Your task to perform on an android device: Search for a new eyeliner Image 0: 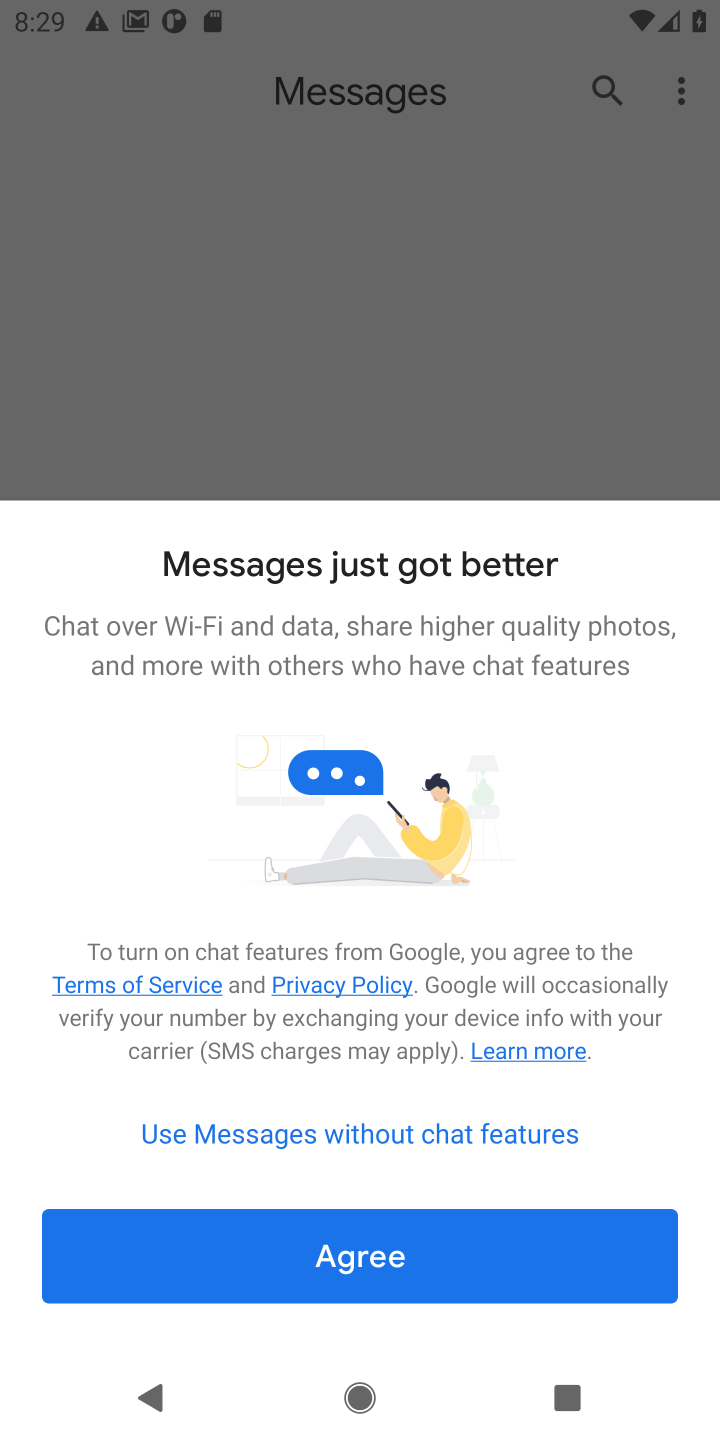
Step 0: press home button
Your task to perform on an android device: Search for a new eyeliner Image 1: 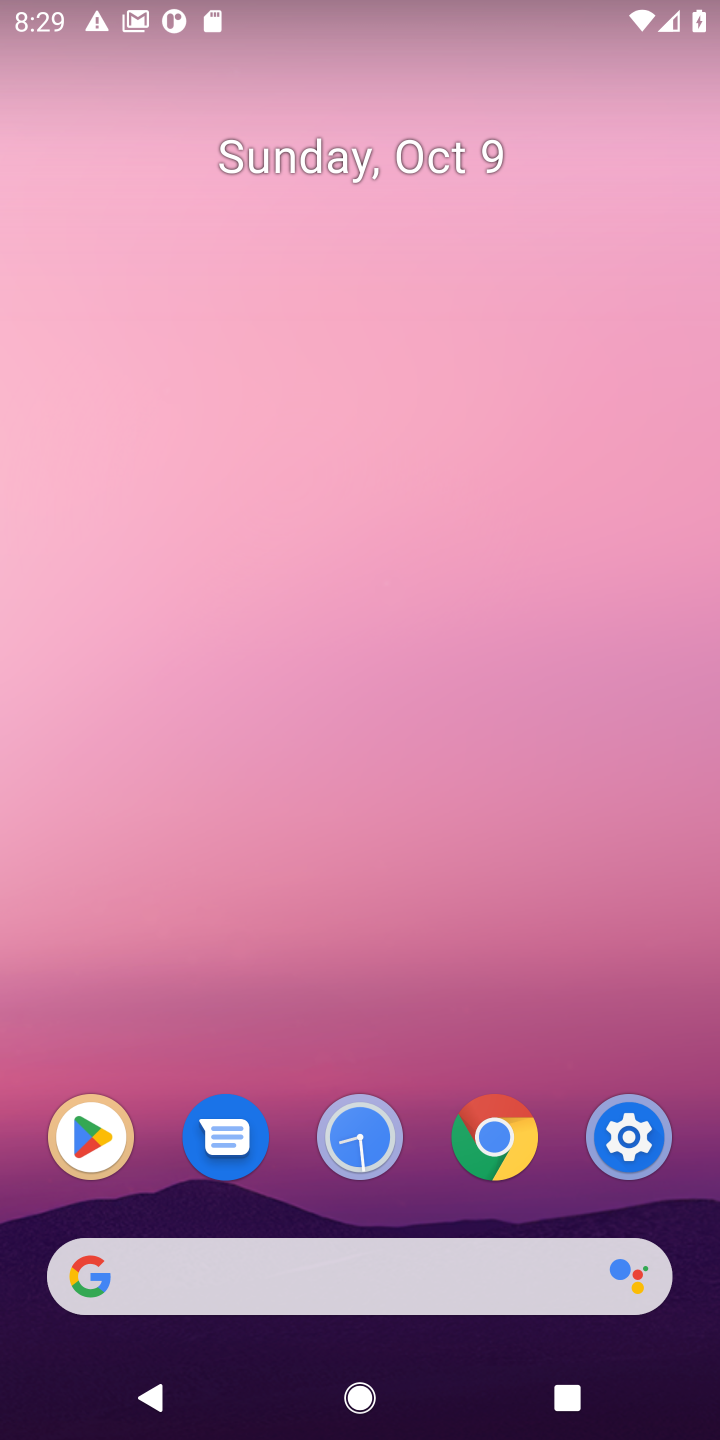
Step 1: click (490, 1135)
Your task to perform on an android device: Search for a new eyeliner Image 2: 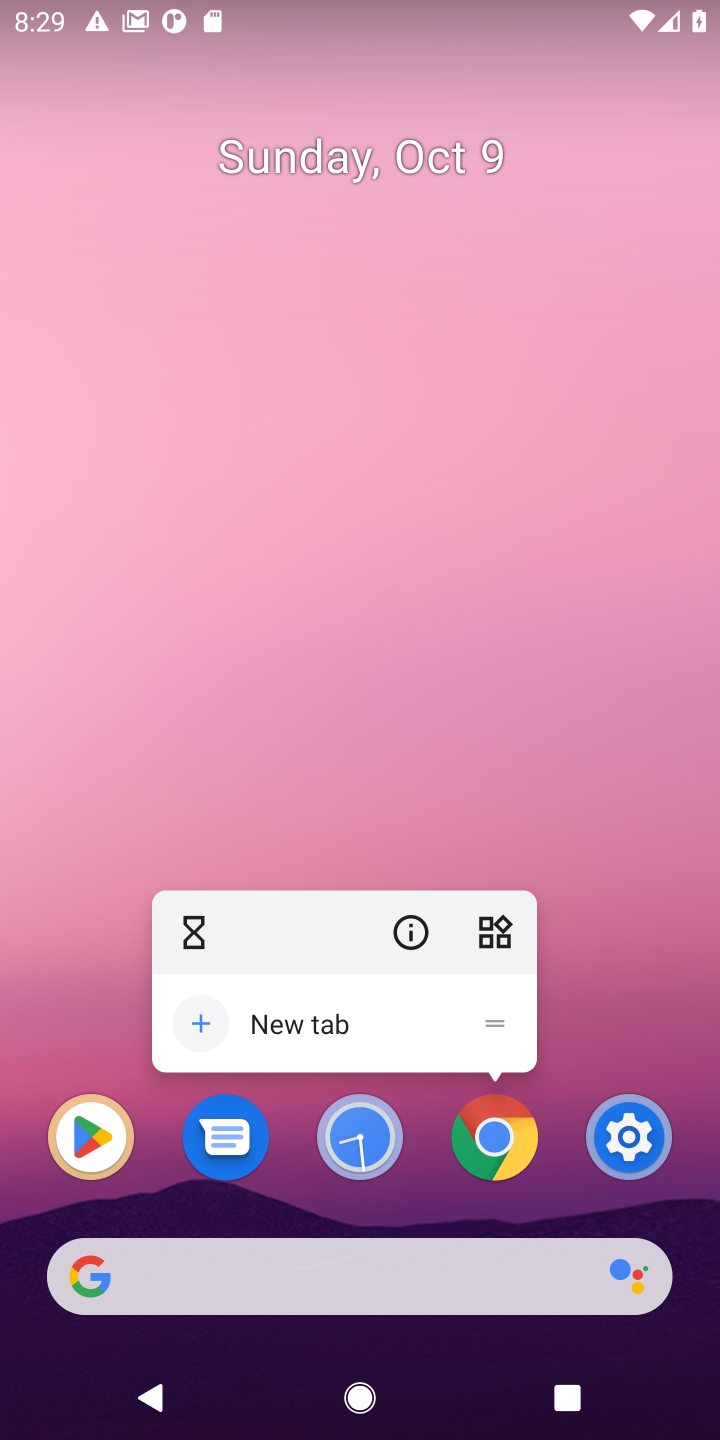
Step 2: click (490, 1135)
Your task to perform on an android device: Search for a new eyeliner Image 3: 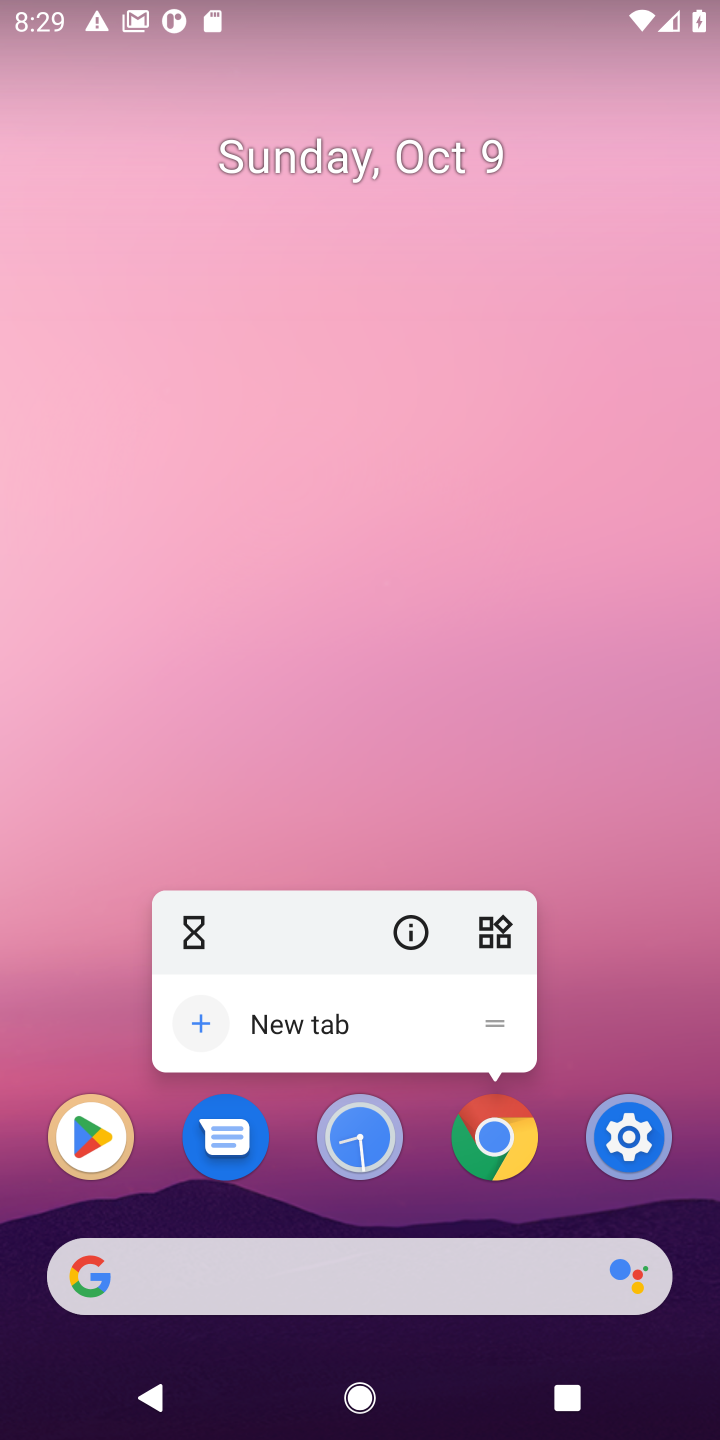
Step 3: click (633, 876)
Your task to perform on an android device: Search for a new eyeliner Image 4: 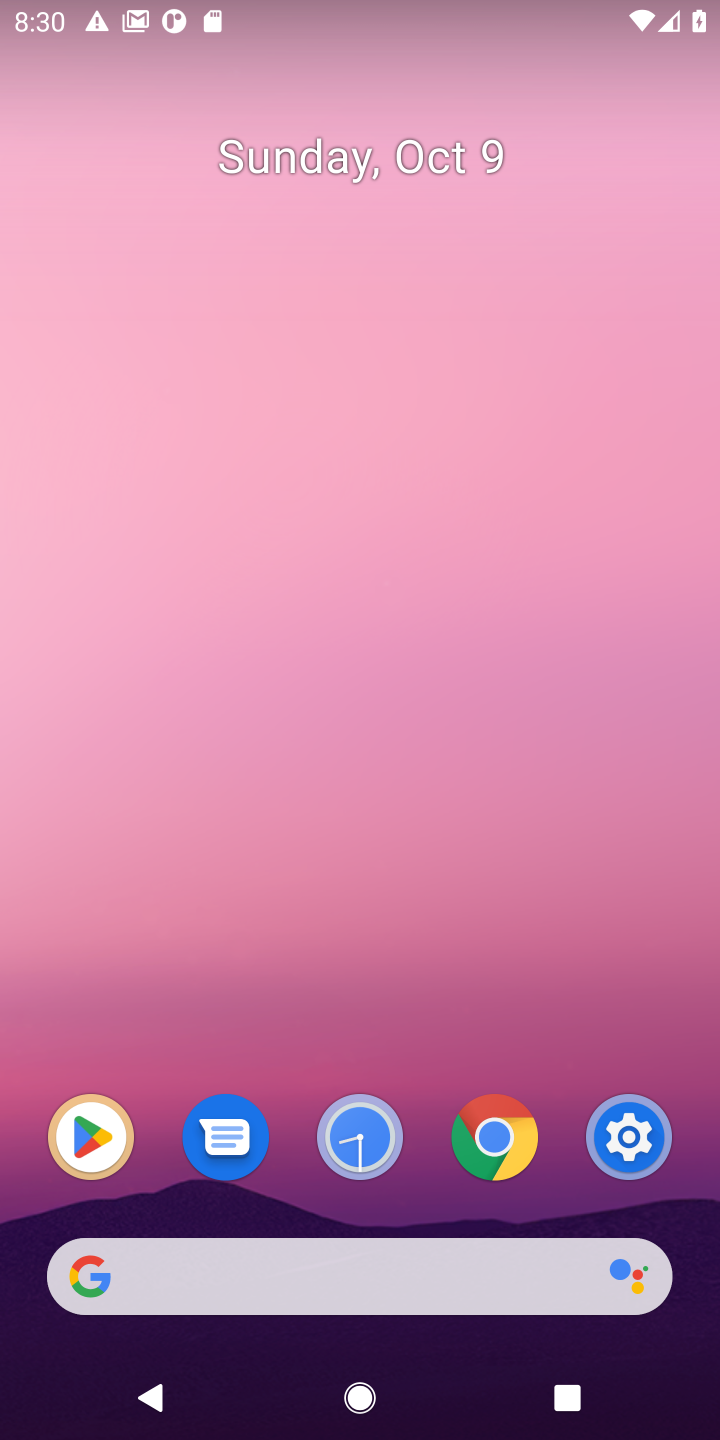
Step 4: drag from (562, 1094) to (410, 78)
Your task to perform on an android device: Search for a new eyeliner Image 5: 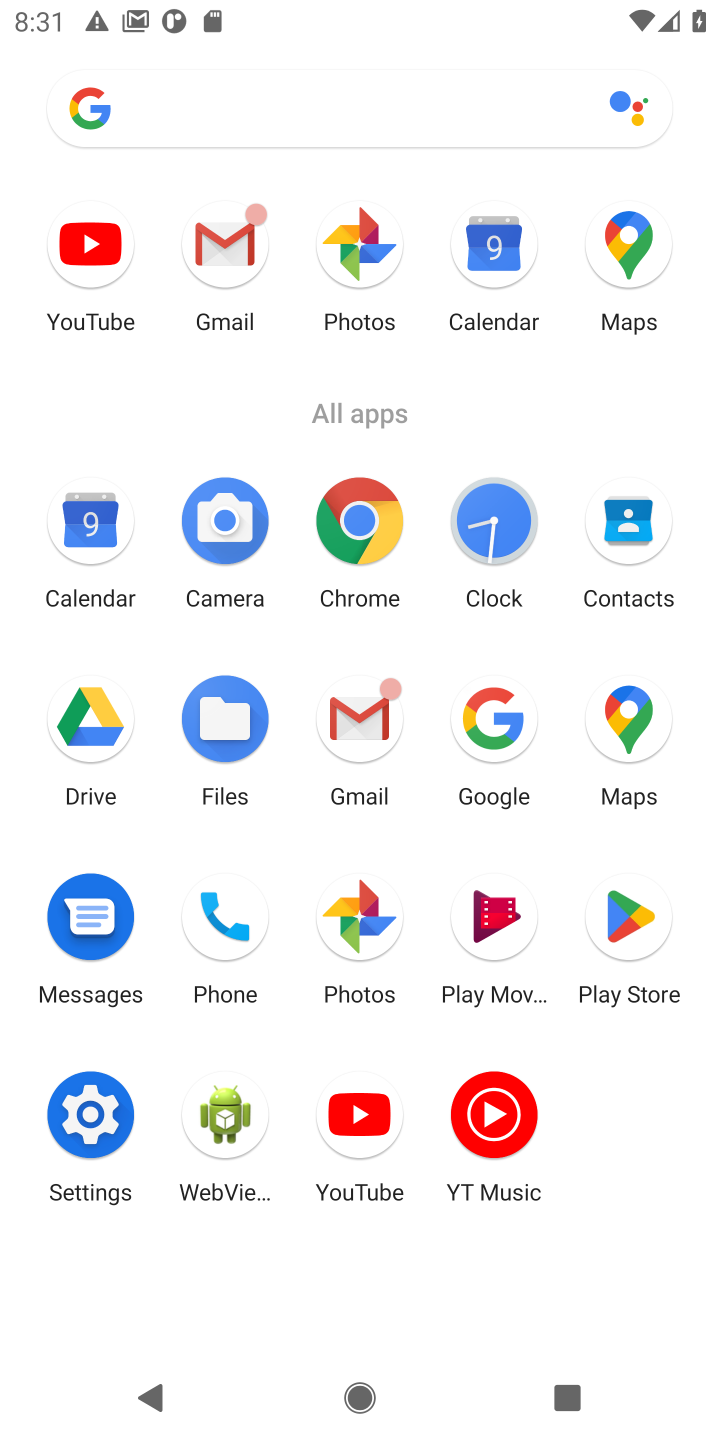
Step 5: click (349, 517)
Your task to perform on an android device: Search for a new eyeliner Image 6: 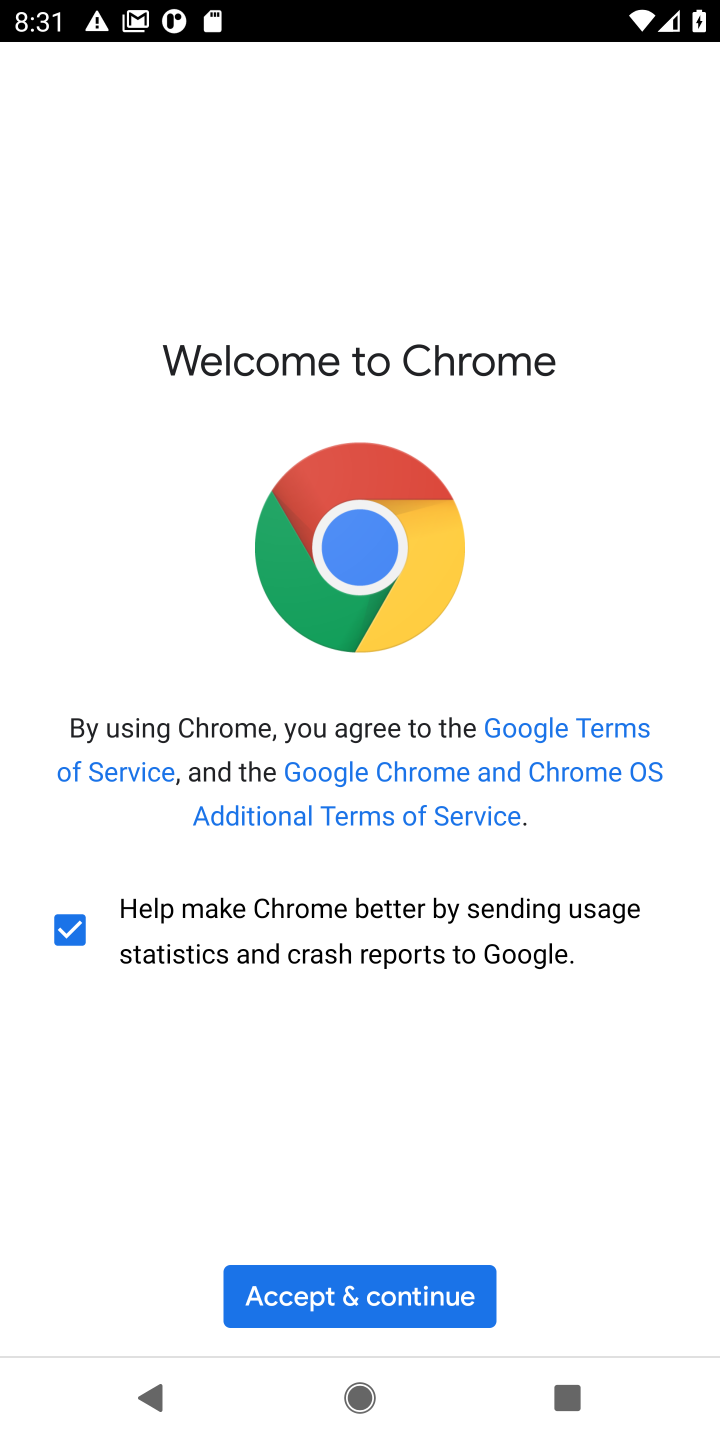
Step 6: click (416, 1294)
Your task to perform on an android device: Search for a new eyeliner Image 7: 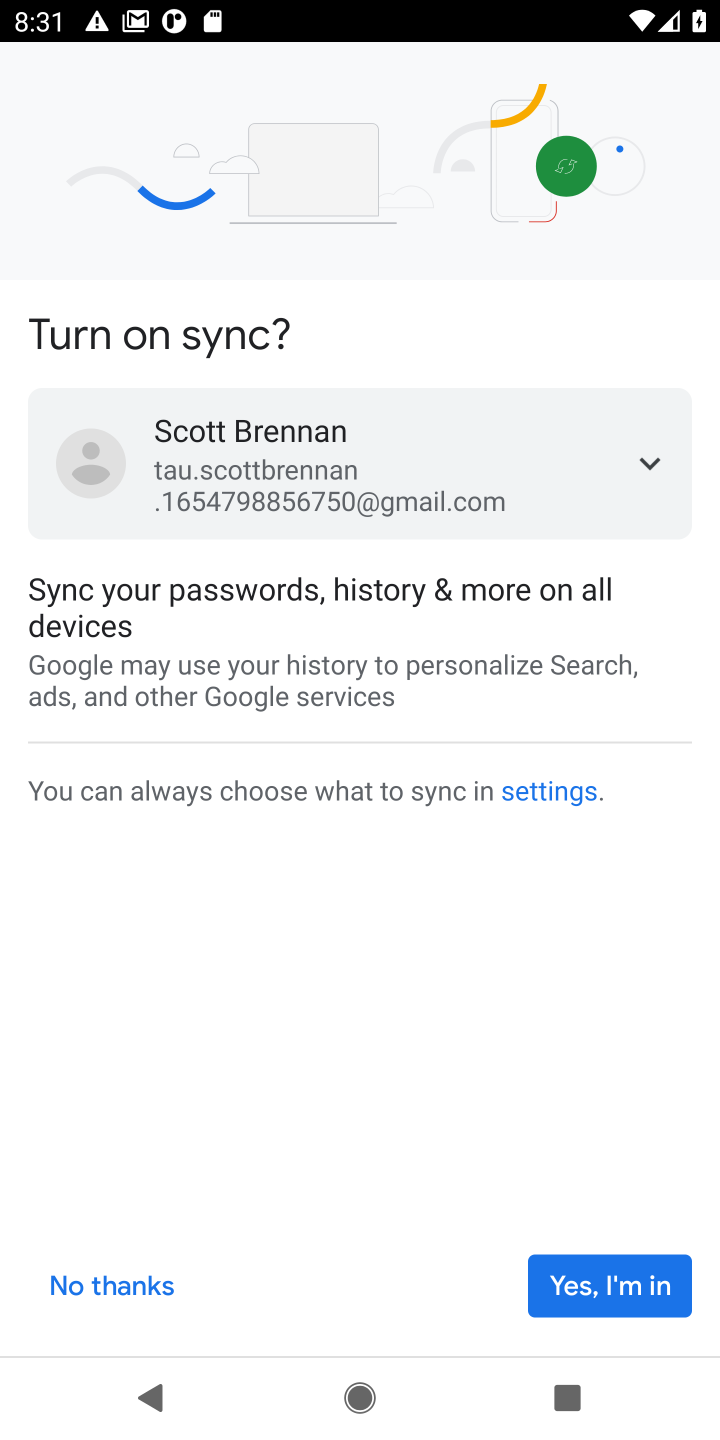
Step 7: click (639, 1295)
Your task to perform on an android device: Search for a new eyeliner Image 8: 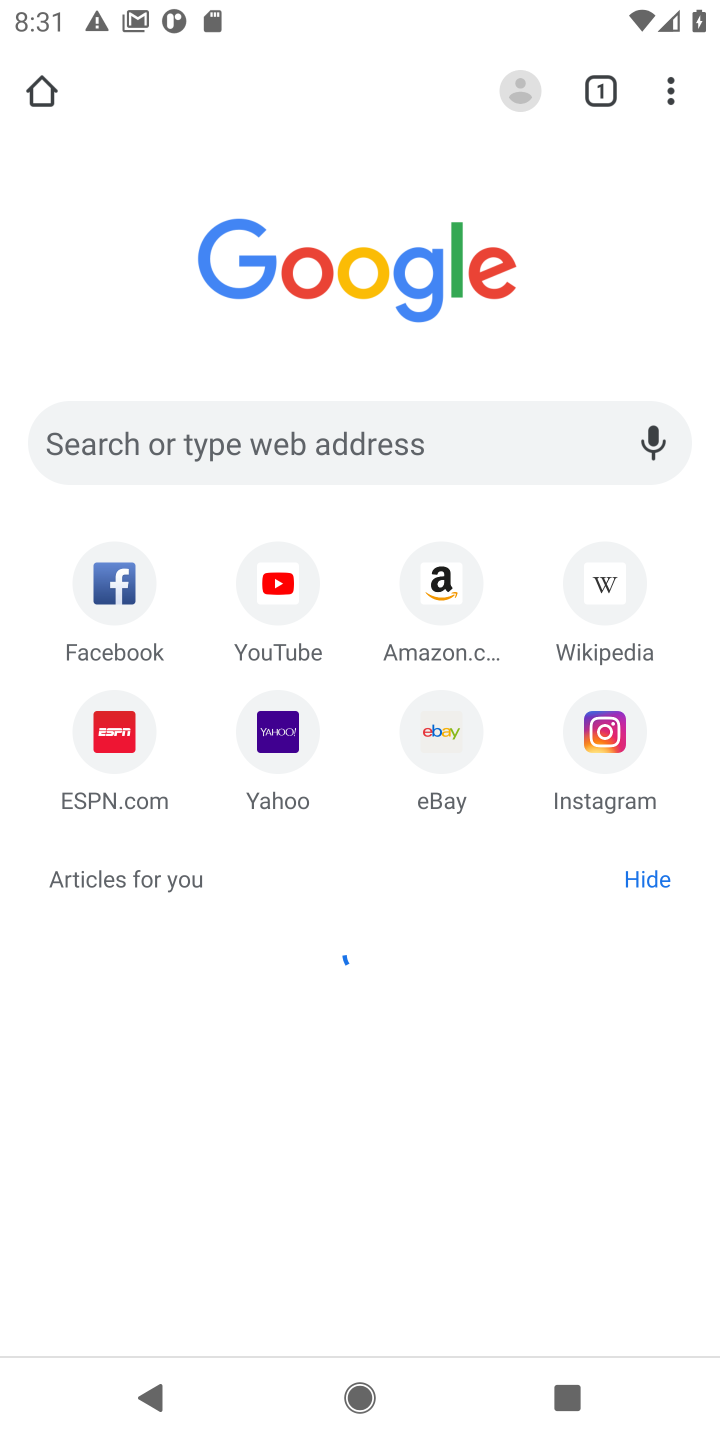
Step 8: click (320, 445)
Your task to perform on an android device: Search for a new eyeliner Image 9: 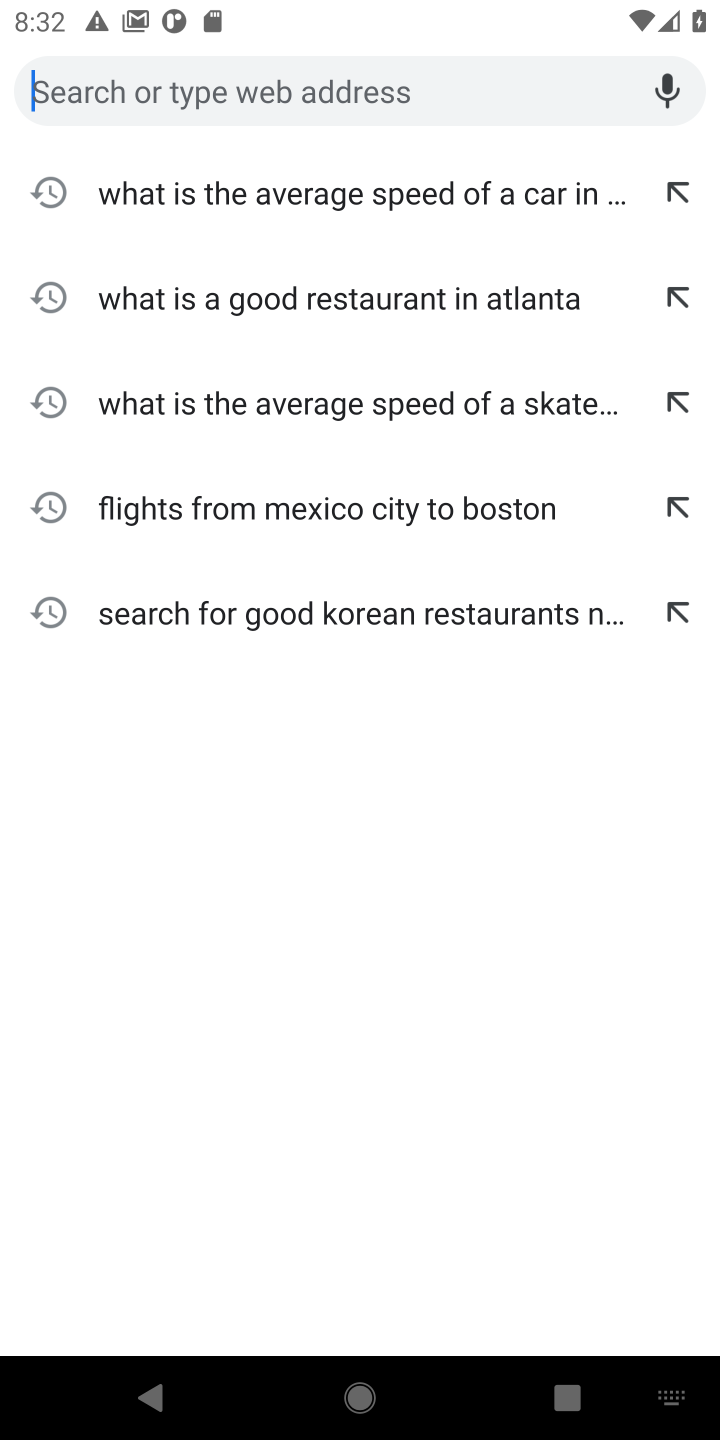
Step 9: type "eyeliner"
Your task to perform on an android device: Search for a new eyeliner Image 10: 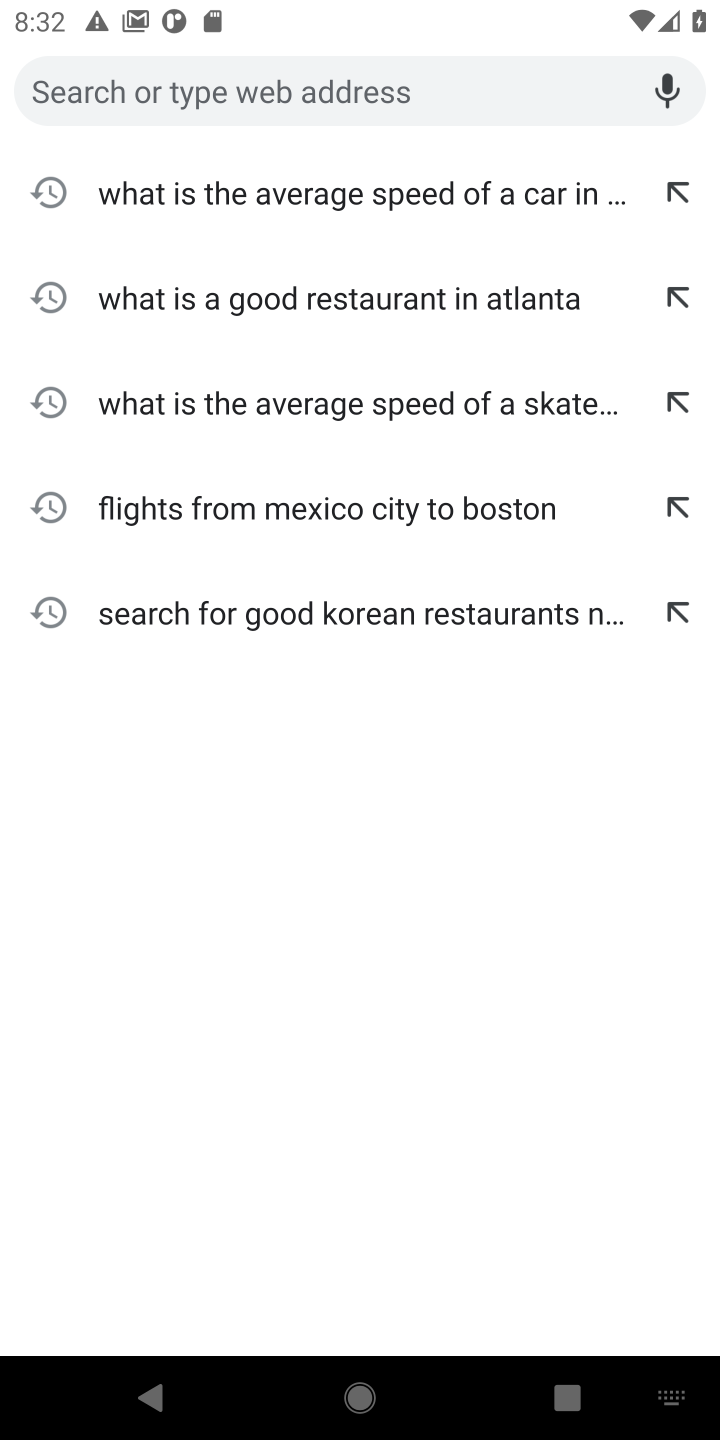
Step 10: click (116, 75)
Your task to perform on an android device: Search for a new eyeliner Image 11: 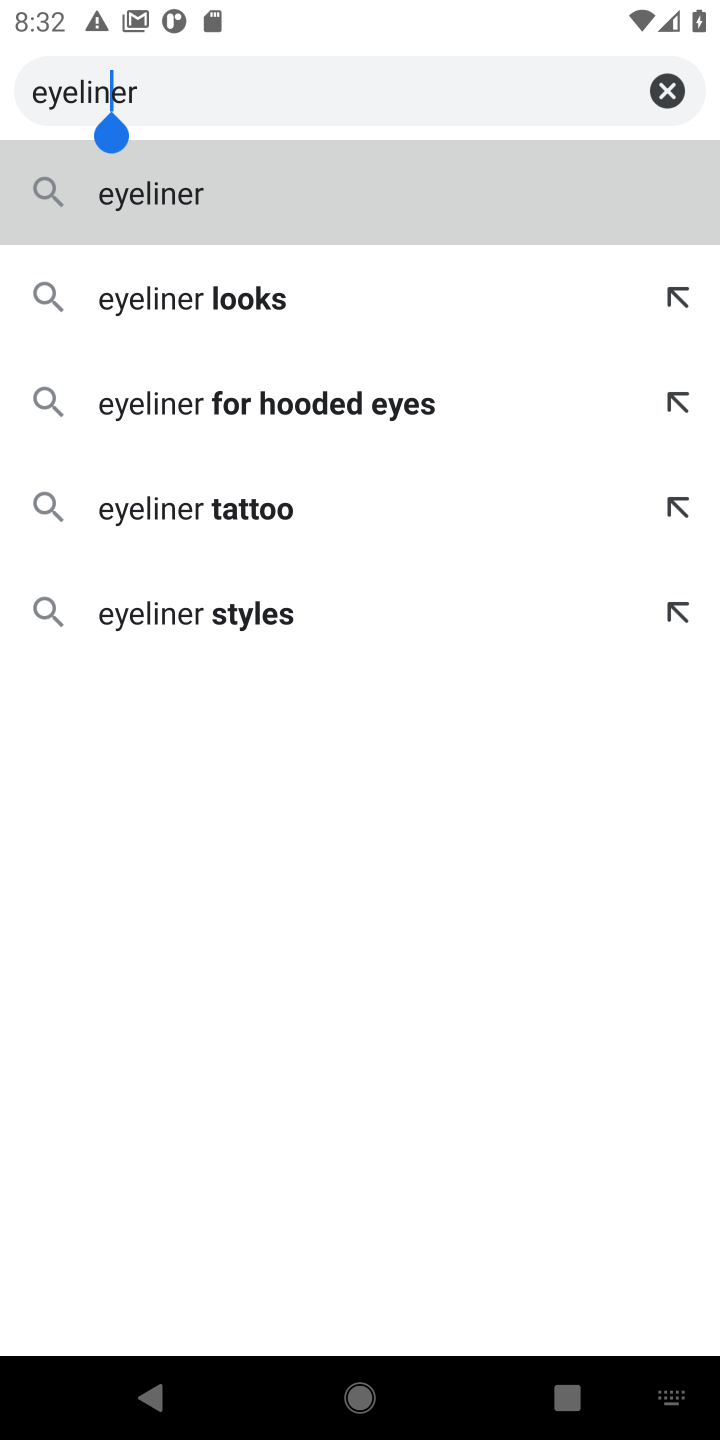
Step 11: click (169, 187)
Your task to perform on an android device: Search for a new eyeliner Image 12: 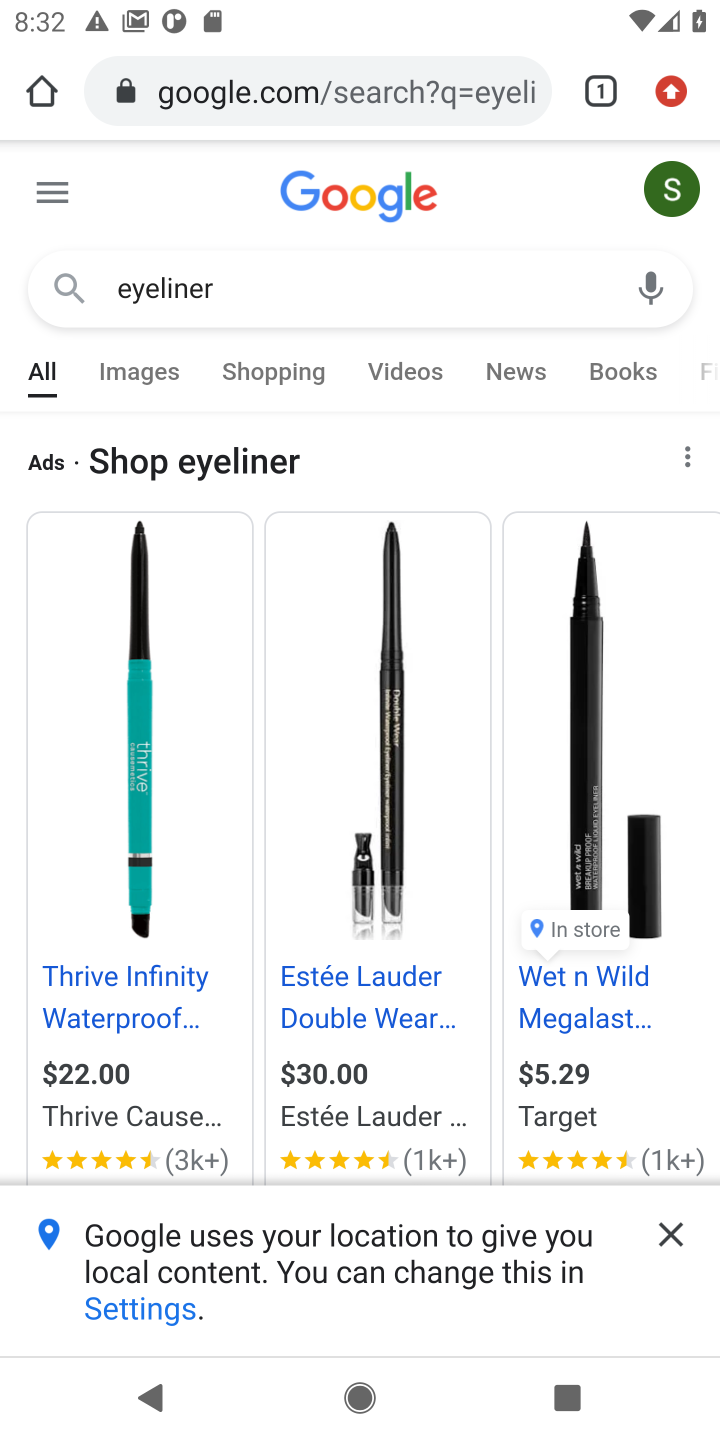
Step 12: task complete